Your task to perform on an android device: change the clock display to analog Image 0: 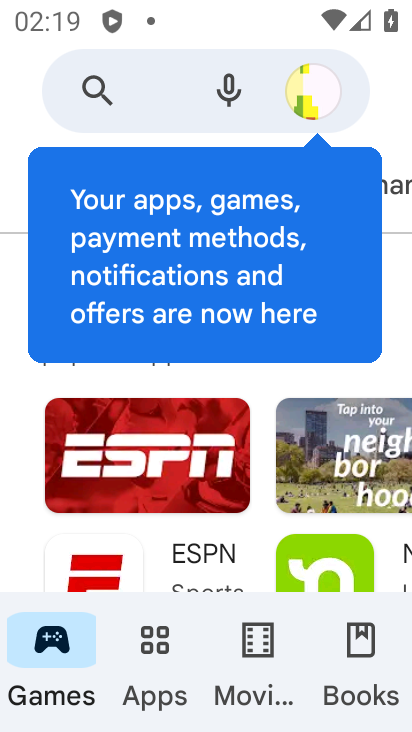
Step 0: press home button
Your task to perform on an android device: change the clock display to analog Image 1: 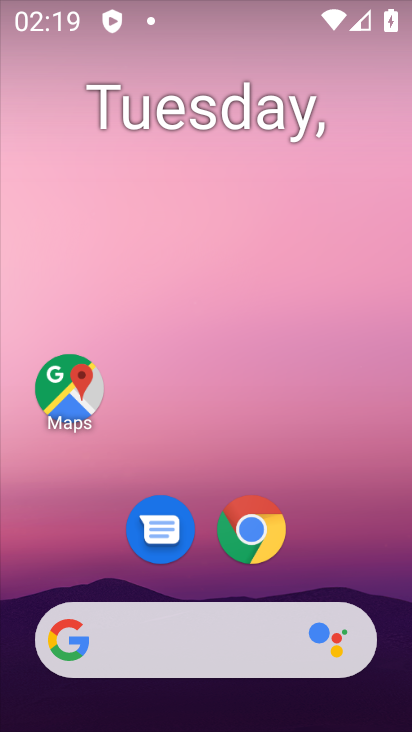
Step 1: drag from (325, 486) to (359, 234)
Your task to perform on an android device: change the clock display to analog Image 2: 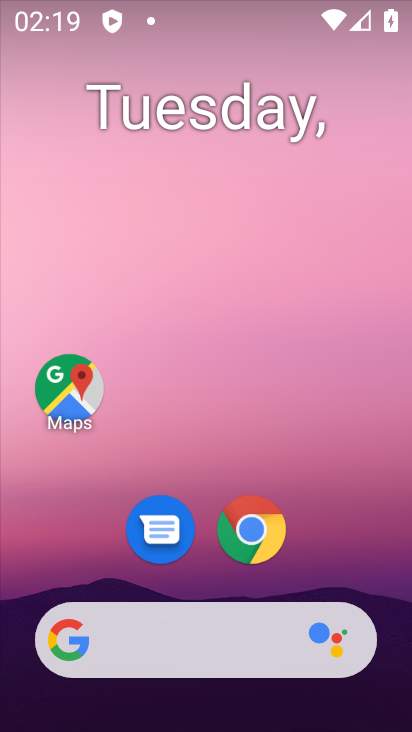
Step 2: drag from (340, 488) to (337, 12)
Your task to perform on an android device: change the clock display to analog Image 3: 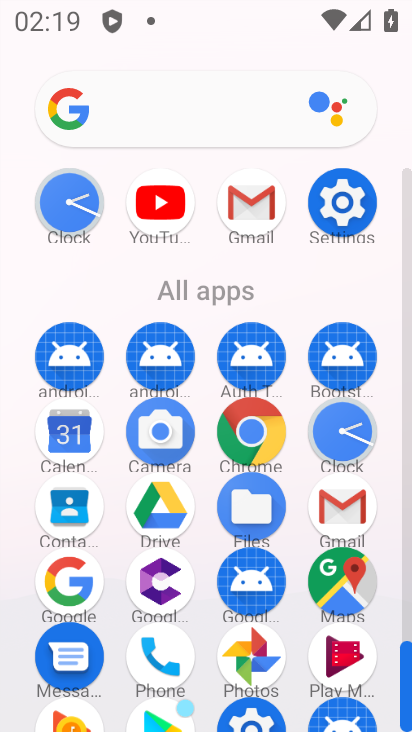
Step 3: click (339, 418)
Your task to perform on an android device: change the clock display to analog Image 4: 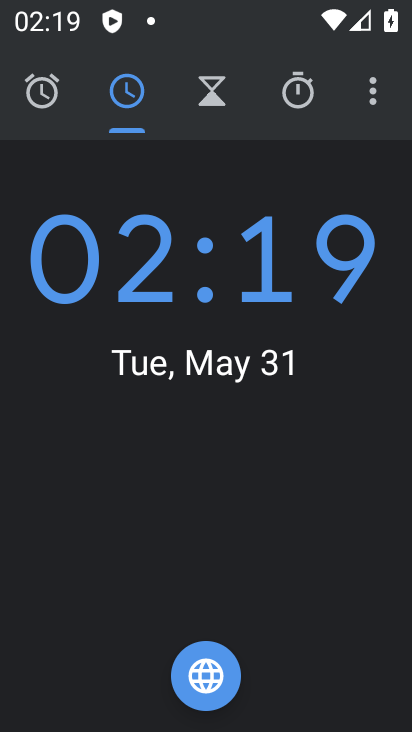
Step 4: click (351, 94)
Your task to perform on an android device: change the clock display to analog Image 5: 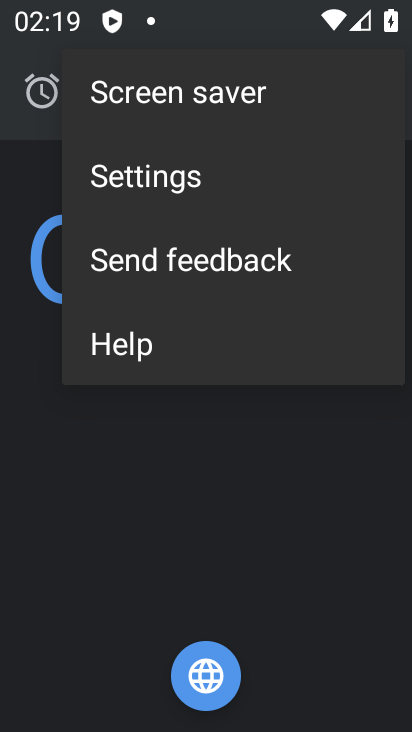
Step 5: click (101, 181)
Your task to perform on an android device: change the clock display to analog Image 6: 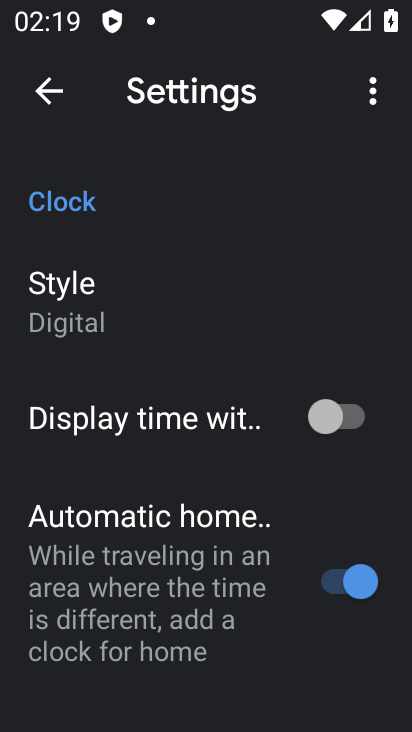
Step 6: click (64, 285)
Your task to perform on an android device: change the clock display to analog Image 7: 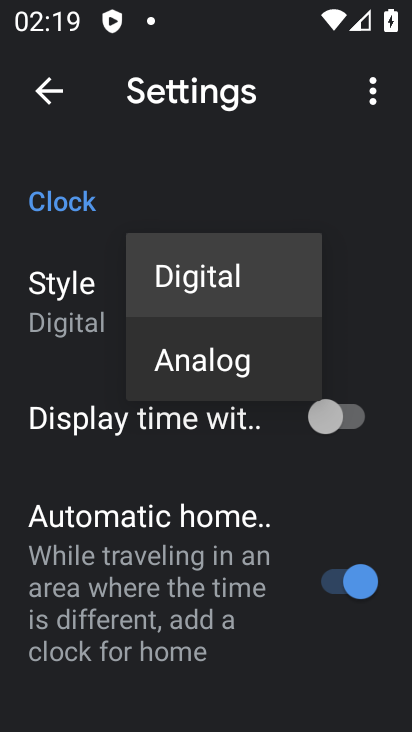
Step 7: click (193, 375)
Your task to perform on an android device: change the clock display to analog Image 8: 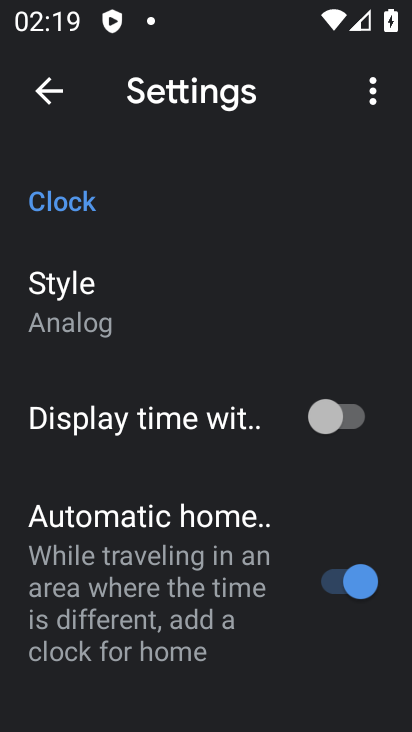
Step 8: task complete